Your task to perform on an android device: check google app version Image 0: 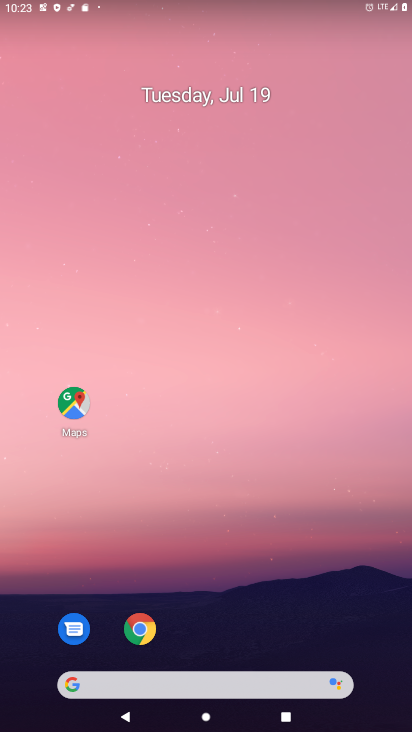
Step 0: click (67, 684)
Your task to perform on an android device: check google app version Image 1: 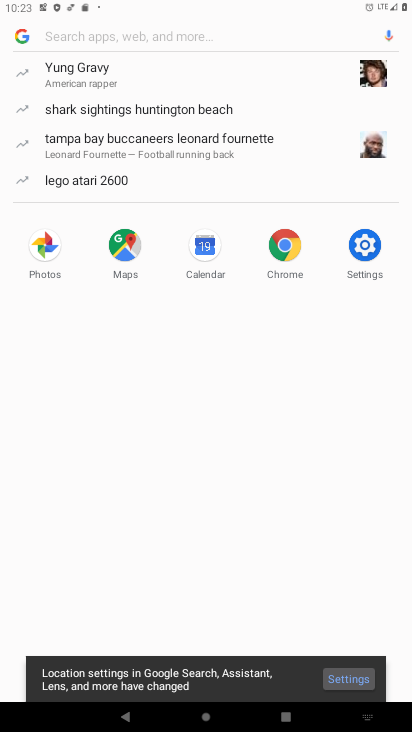
Step 1: click (30, 35)
Your task to perform on an android device: check google app version Image 2: 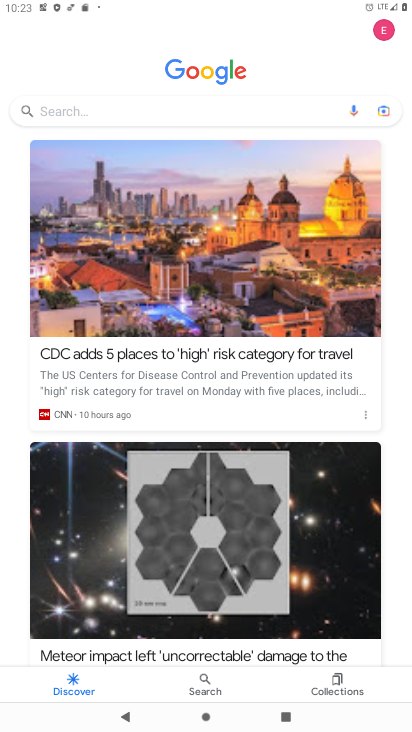
Step 2: click (383, 29)
Your task to perform on an android device: check google app version Image 3: 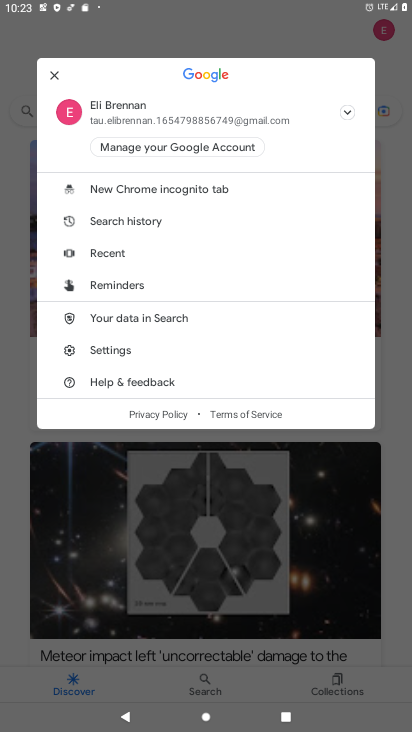
Step 3: click (126, 356)
Your task to perform on an android device: check google app version Image 4: 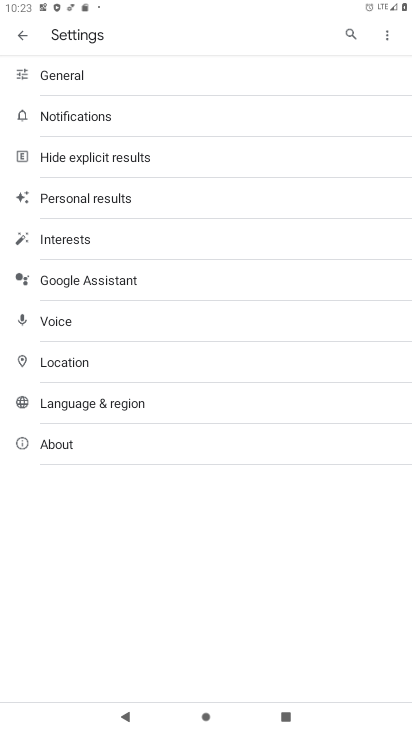
Step 4: click (63, 449)
Your task to perform on an android device: check google app version Image 5: 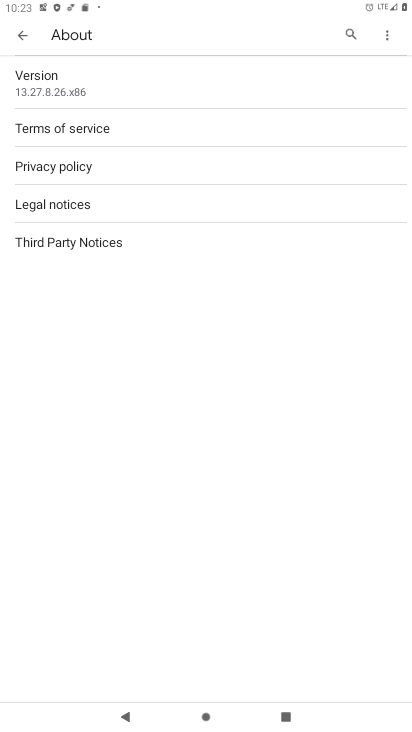
Step 5: task complete